Your task to perform on an android device: Go to battery settings Image 0: 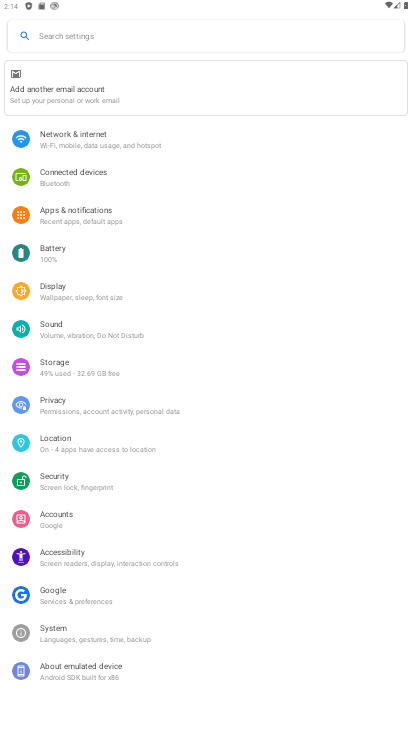
Step 0: click (90, 261)
Your task to perform on an android device: Go to battery settings Image 1: 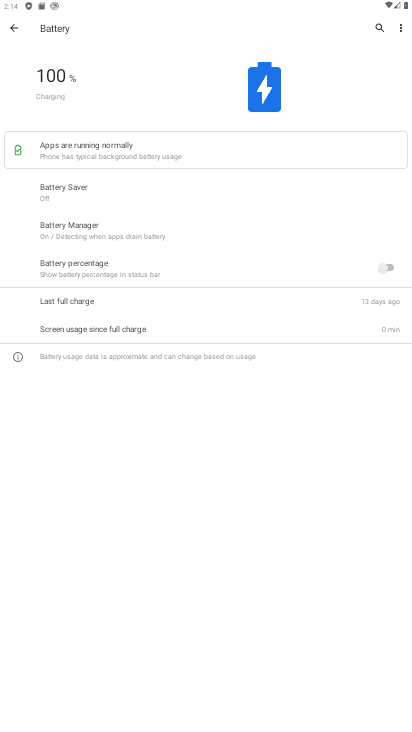
Step 1: task complete